Your task to perform on an android device: toggle data saver in the chrome app Image 0: 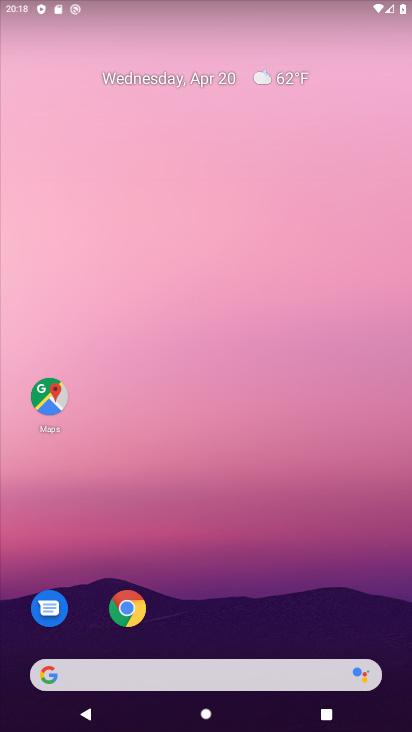
Step 0: drag from (299, 602) to (254, 0)
Your task to perform on an android device: toggle data saver in the chrome app Image 1: 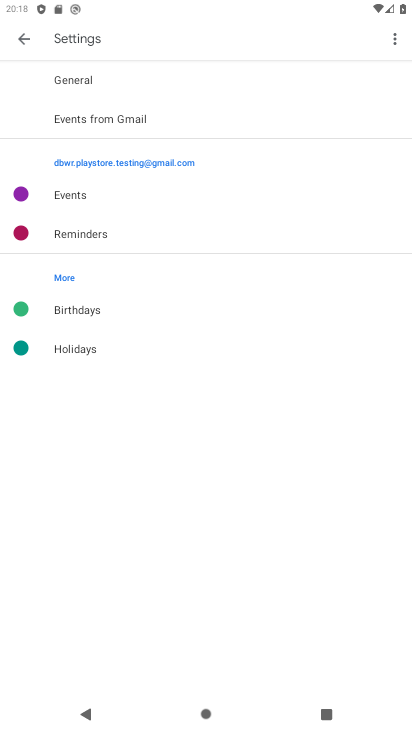
Step 1: press home button
Your task to perform on an android device: toggle data saver in the chrome app Image 2: 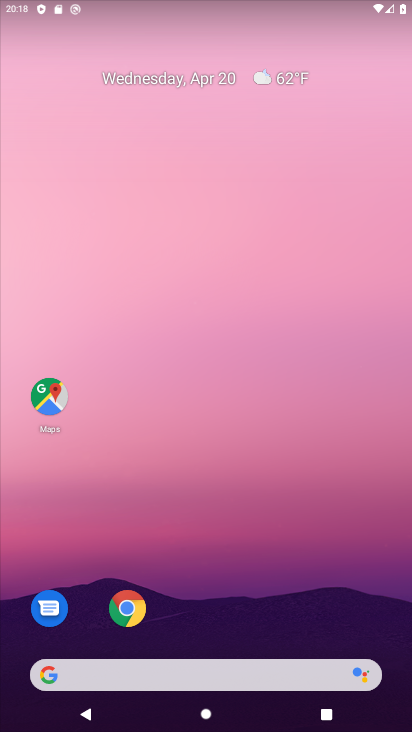
Step 2: drag from (236, 455) to (246, 5)
Your task to perform on an android device: toggle data saver in the chrome app Image 3: 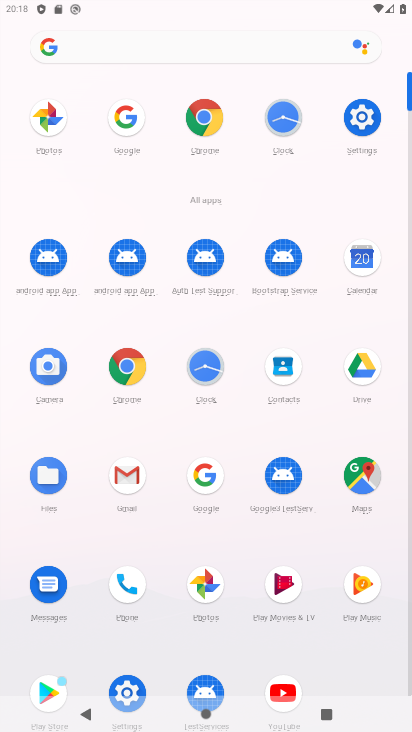
Step 3: click (204, 113)
Your task to perform on an android device: toggle data saver in the chrome app Image 4: 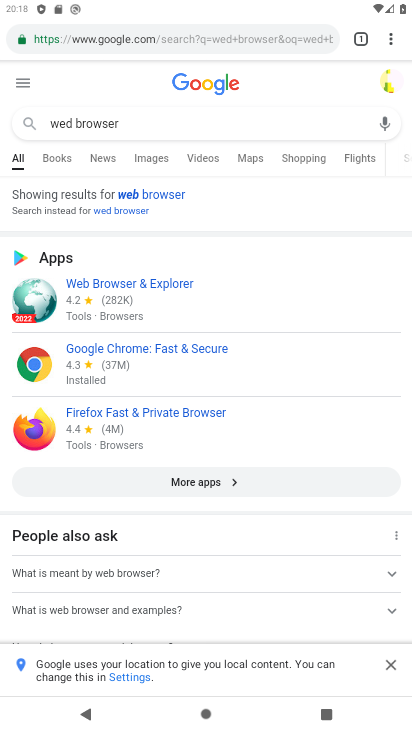
Step 4: click (387, 41)
Your task to perform on an android device: toggle data saver in the chrome app Image 5: 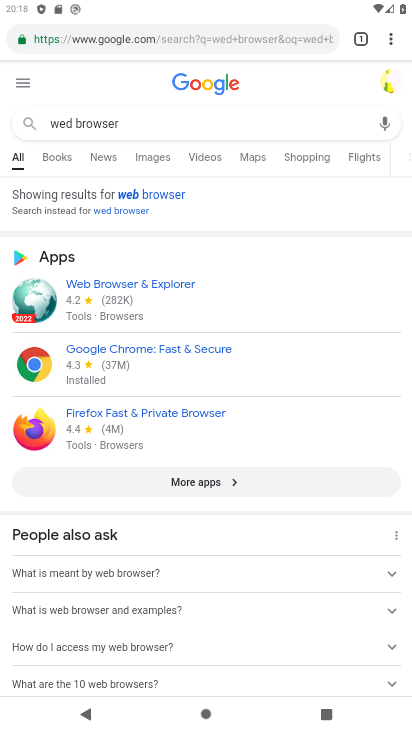
Step 5: drag from (390, 34) to (226, 436)
Your task to perform on an android device: toggle data saver in the chrome app Image 6: 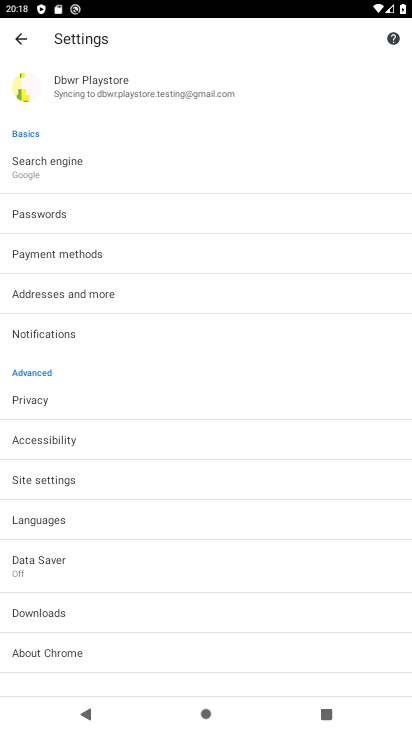
Step 6: click (5, 574)
Your task to perform on an android device: toggle data saver in the chrome app Image 7: 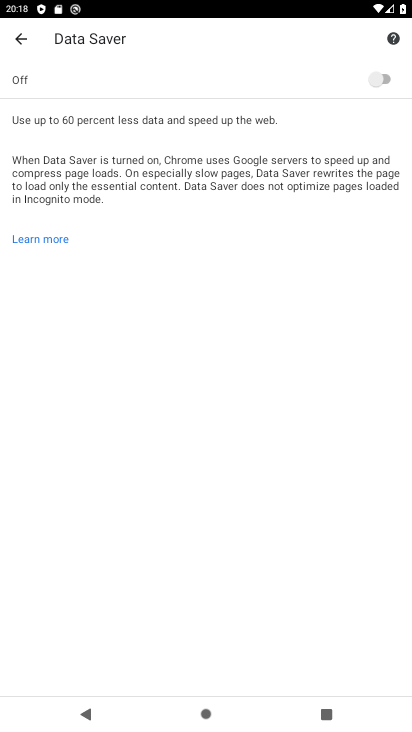
Step 7: click (384, 76)
Your task to perform on an android device: toggle data saver in the chrome app Image 8: 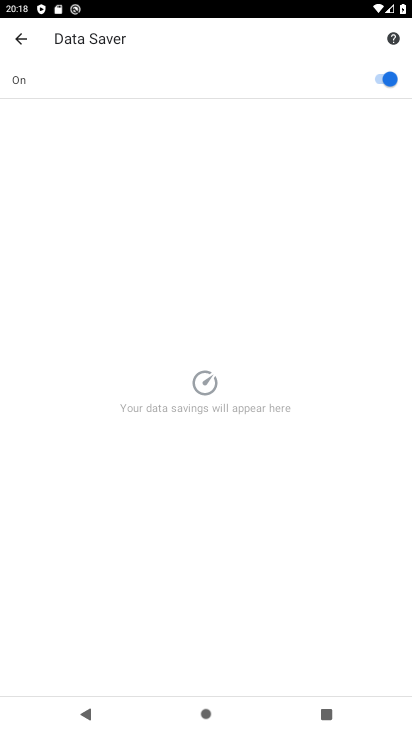
Step 8: task complete